Your task to perform on an android device: Go to display settings Image 0: 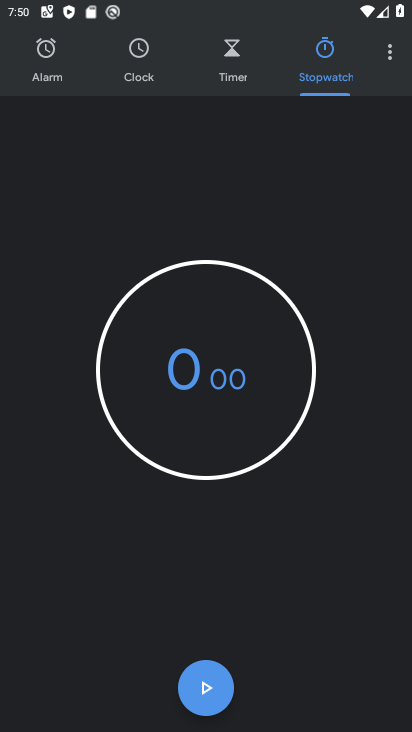
Step 0: press home button
Your task to perform on an android device: Go to display settings Image 1: 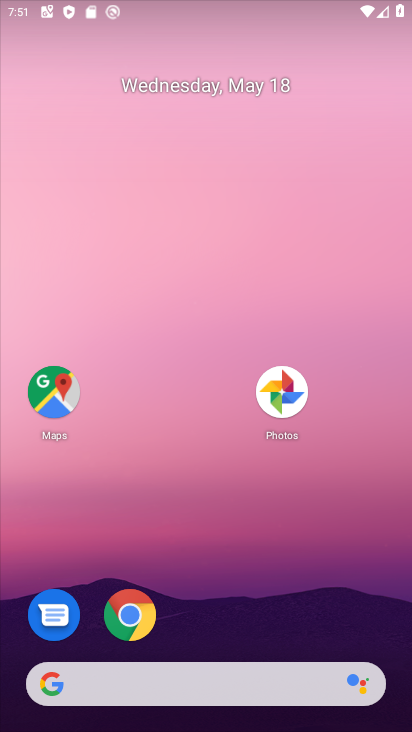
Step 1: drag from (267, 600) to (262, 252)
Your task to perform on an android device: Go to display settings Image 2: 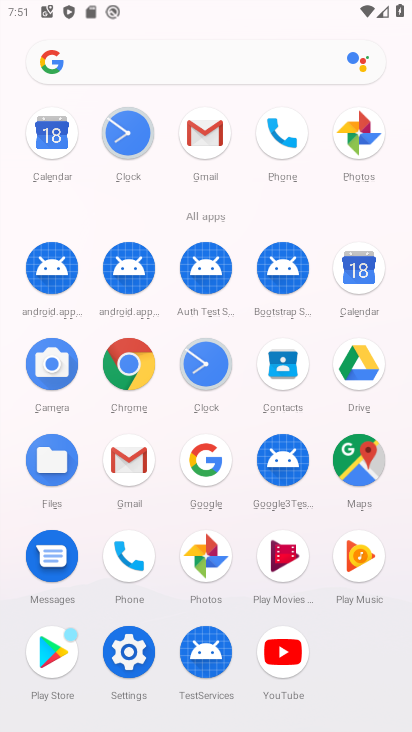
Step 2: drag from (124, 659) to (55, 233)
Your task to perform on an android device: Go to display settings Image 3: 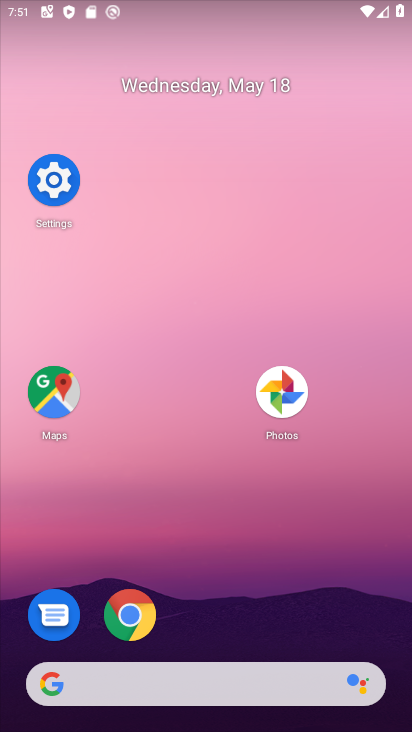
Step 3: click (49, 209)
Your task to perform on an android device: Go to display settings Image 4: 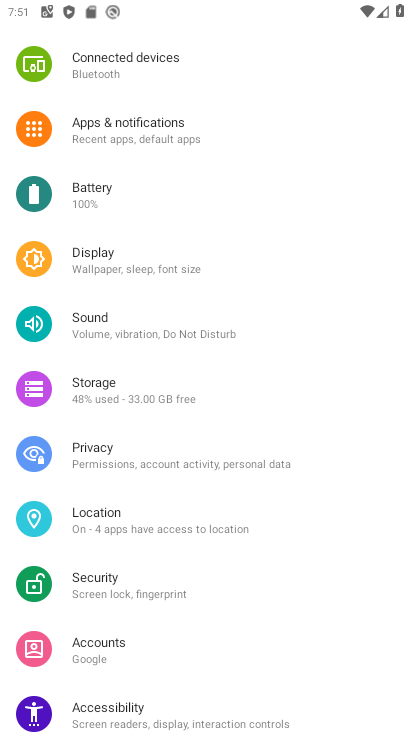
Step 4: click (94, 280)
Your task to perform on an android device: Go to display settings Image 5: 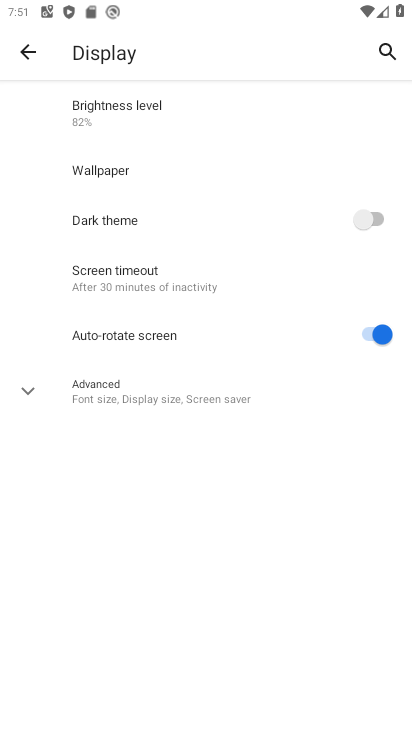
Step 5: task complete